Your task to perform on an android device: empty trash in the gmail app Image 0: 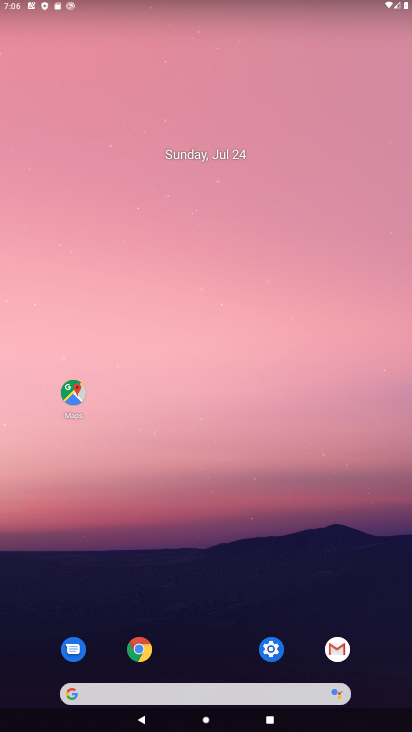
Step 0: click (336, 650)
Your task to perform on an android device: empty trash in the gmail app Image 1: 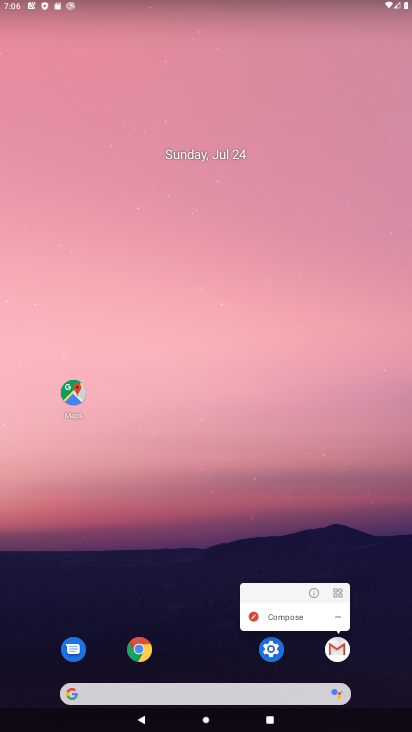
Step 1: click (333, 660)
Your task to perform on an android device: empty trash in the gmail app Image 2: 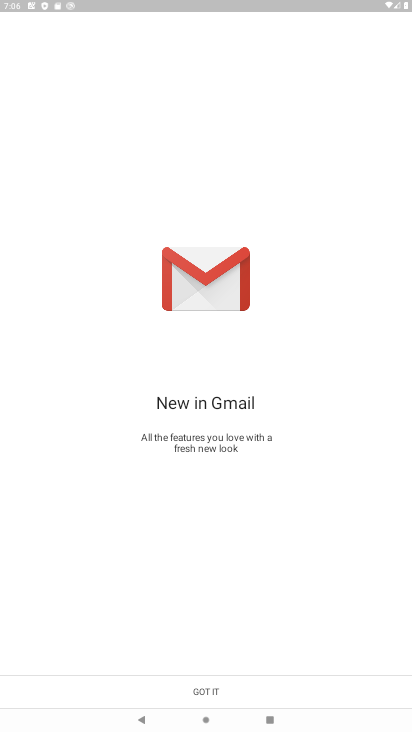
Step 2: click (208, 689)
Your task to perform on an android device: empty trash in the gmail app Image 3: 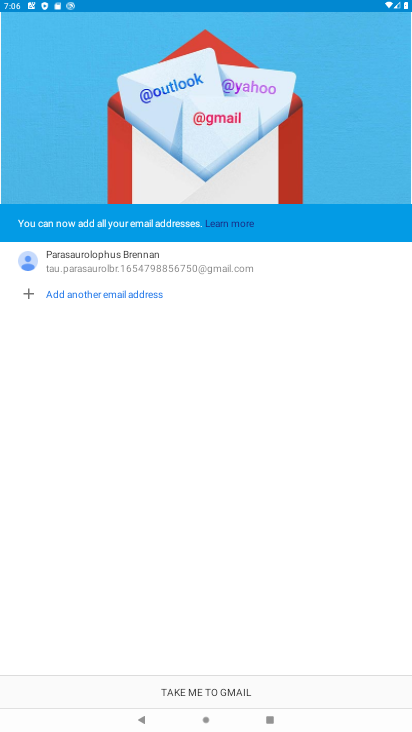
Step 3: click (210, 687)
Your task to perform on an android device: empty trash in the gmail app Image 4: 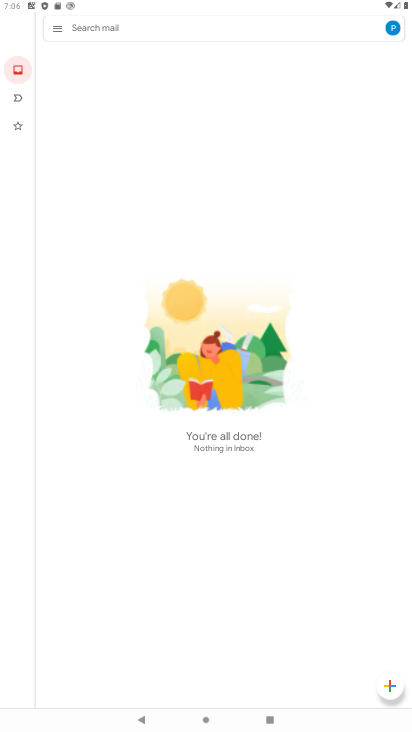
Step 4: click (51, 29)
Your task to perform on an android device: empty trash in the gmail app Image 5: 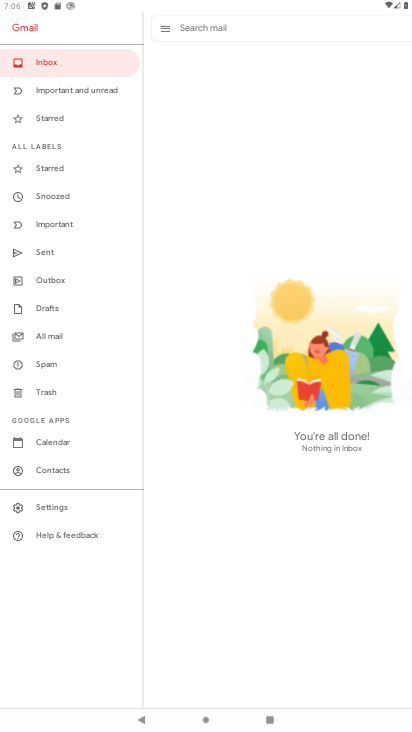
Step 5: click (40, 391)
Your task to perform on an android device: empty trash in the gmail app Image 6: 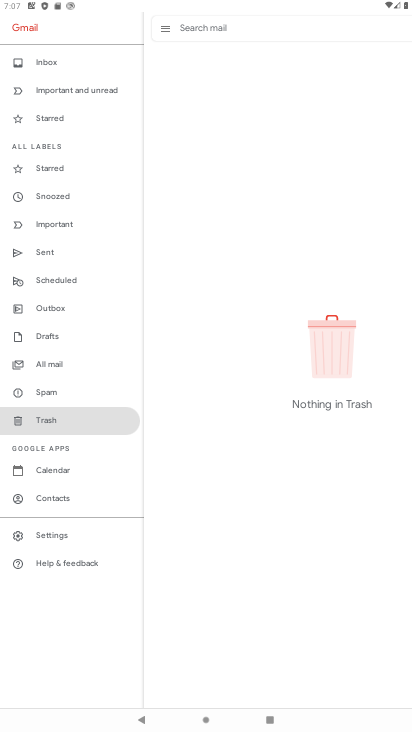
Step 6: task complete